Your task to perform on an android device: change the clock display to digital Image 0: 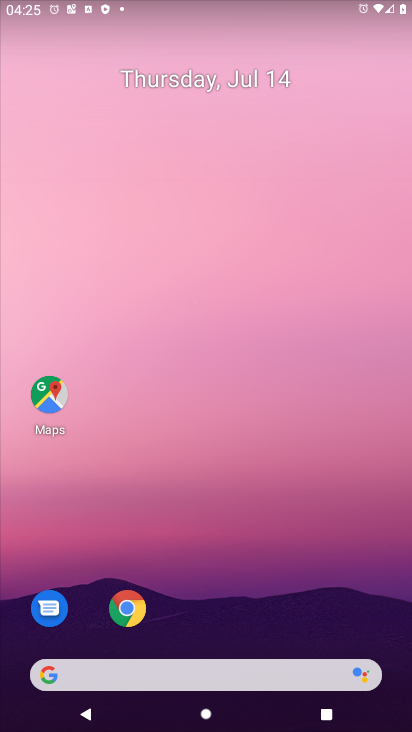
Step 0: drag from (381, 629) to (333, 104)
Your task to perform on an android device: change the clock display to digital Image 1: 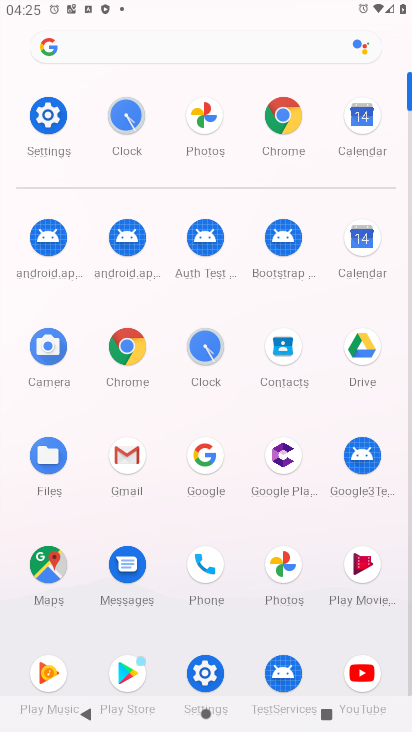
Step 1: click (206, 347)
Your task to perform on an android device: change the clock display to digital Image 2: 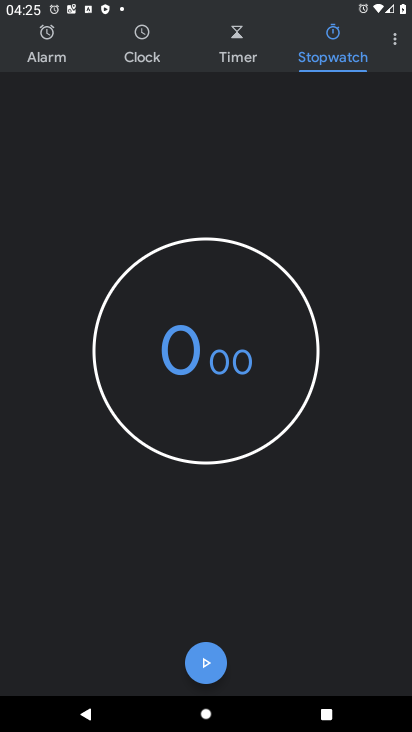
Step 2: click (400, 46)
Your task to perform on an android device: change the clock display to digital Image 3: 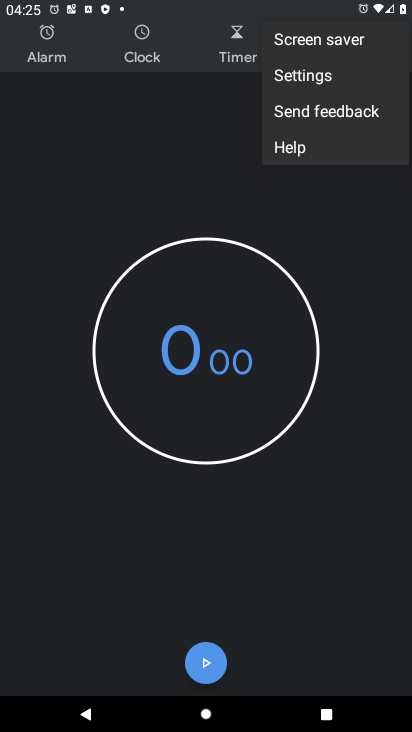
Step 3: click (299, 71)
Your task to perform on an android device: change the clock display to digital Image 4: 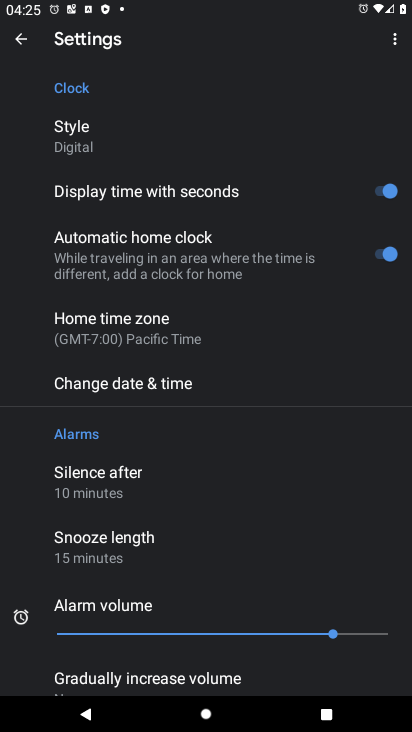
Step 4: task complete